Your task to perform on an android device: Check the news Image 0: 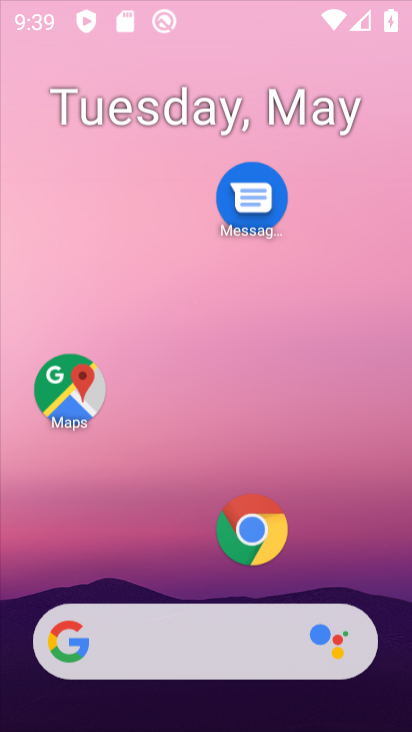
Step 0: click (167, 53)
Your task to perform on an android device: Check the news Image 1: 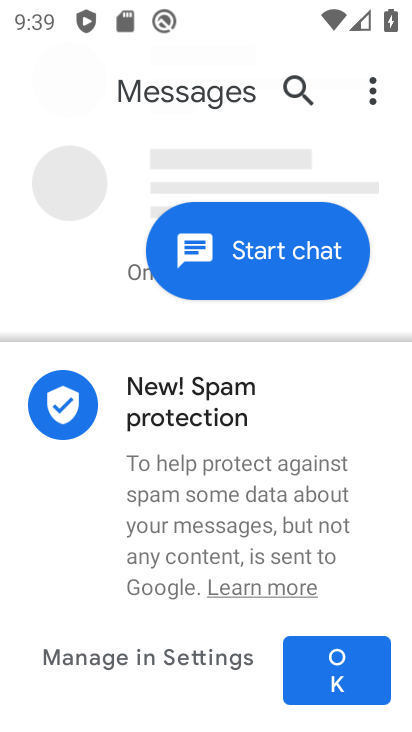
Step 1: press home button
Your task to perform on an android device: Check the news Image 2: 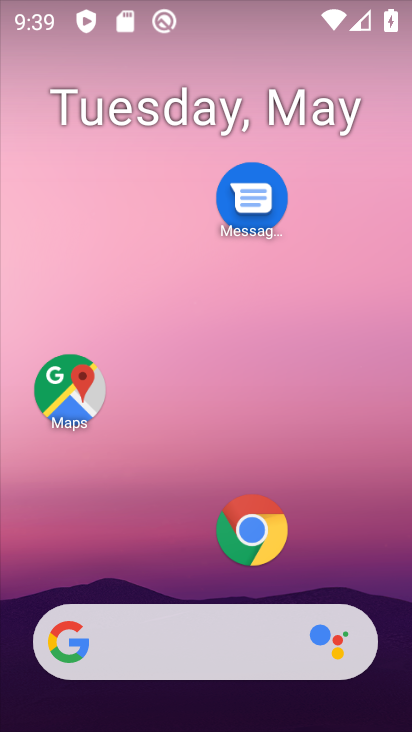
Step 2: click (178, 586)
Your task to perform on an android device: Check the news Image 3: 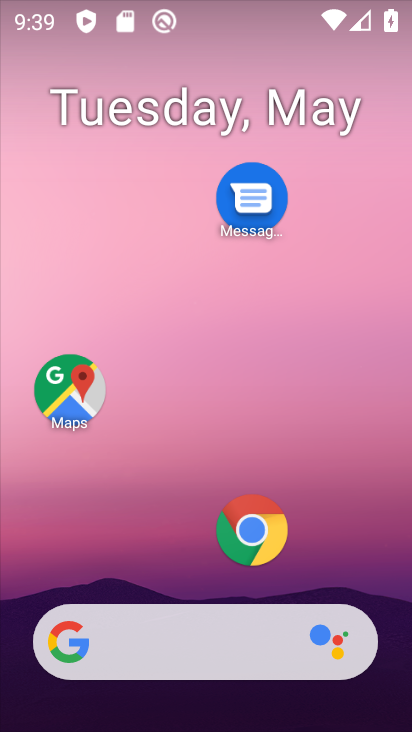
Step 3: click (175, 628)
Your task to perform on an android device: Check the news Image 4: 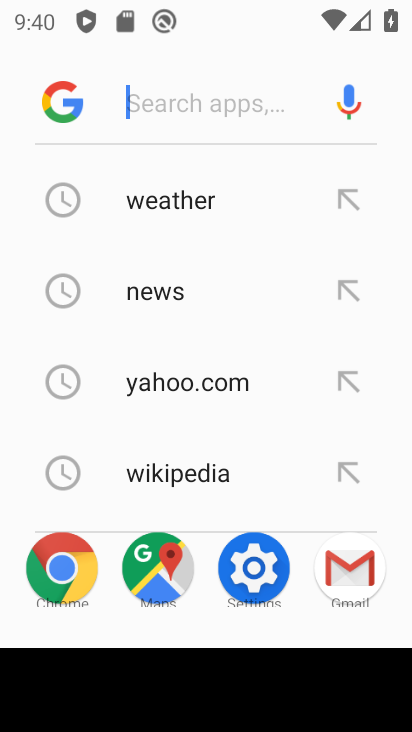
Step 4: click (216, 301)
Your task to perform on an android device: Check the news Image 5: 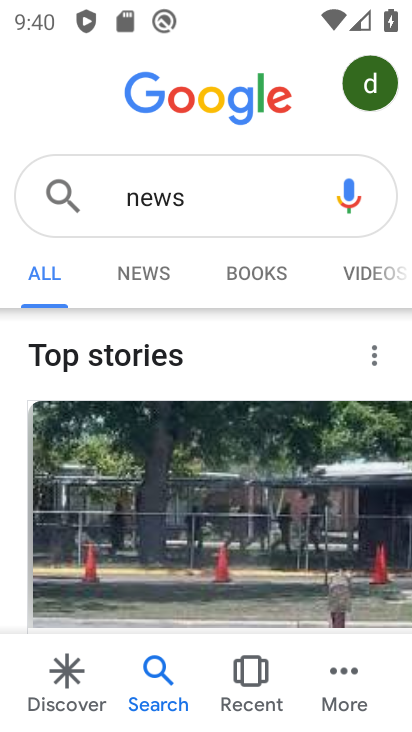
Step 5: task complete